Your task to perform on an android device: change keyboard looks Image 0: 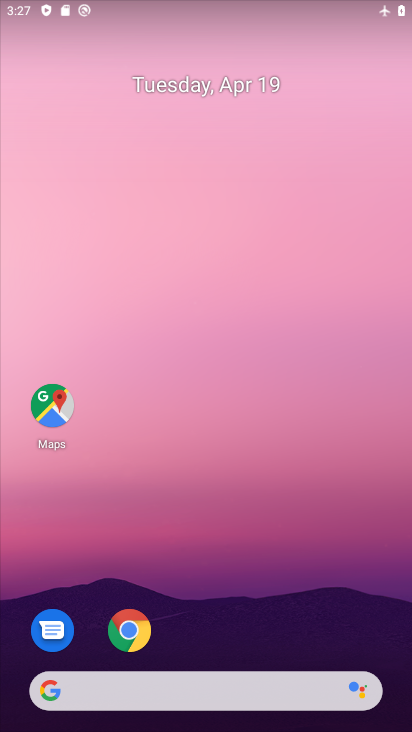
Step 0: drag from (336, 601) to (247, 53)
Your task to perform on an android device: change keyboard looks Image 1: 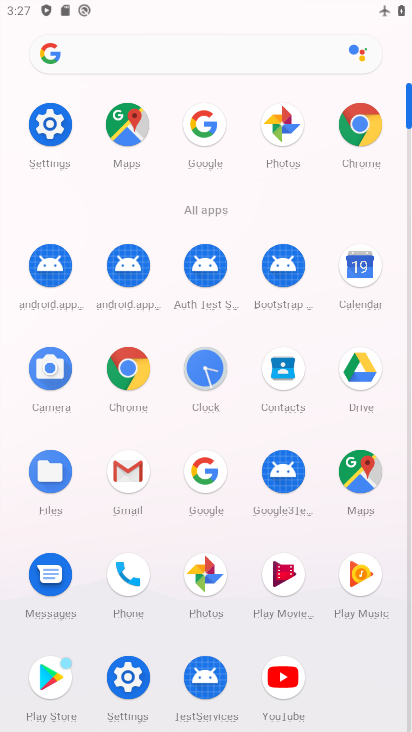
Step 1: click (49, 132)
Your task to perform on an android device: change keyboard looks Image 2: 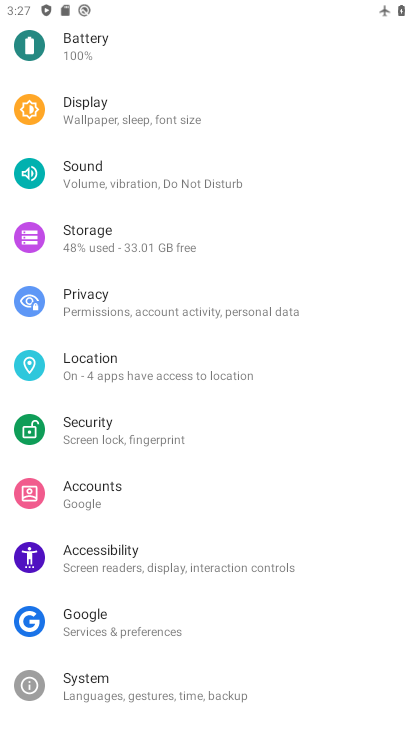
Step 2: drag from (211, 551) to (175, 219)
Your task to perform on an android device: change keyboard looks Image 3: 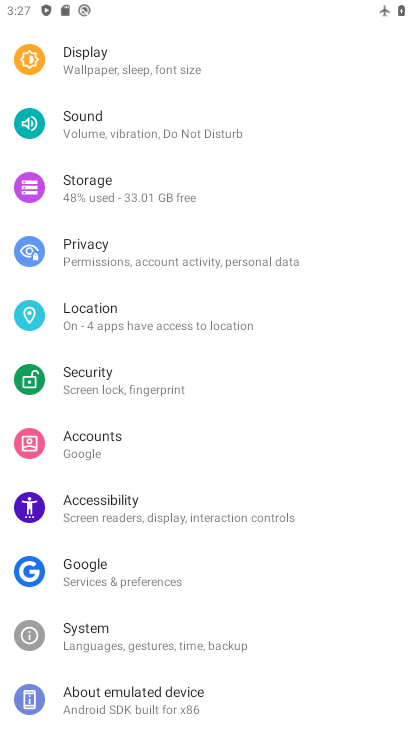
Step 3: drag from (245, 103) to (218, 484)
Your task to perform on an android device: change keyboard looks Image 4: 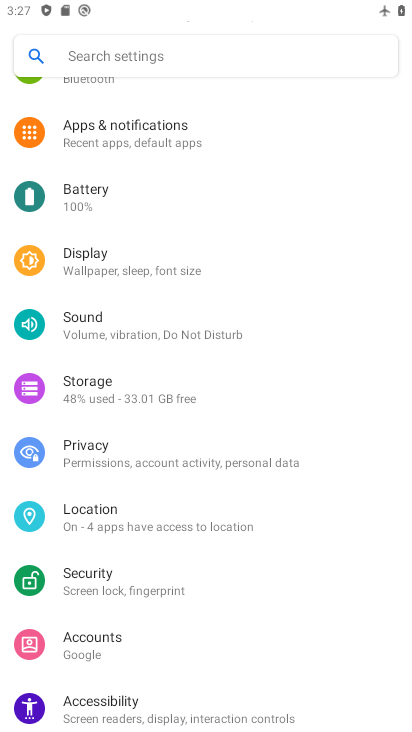
Step 4: drag from (232, 200) to (215, 502)
Your task to perform on an android device: change keyboard looks Image 5: 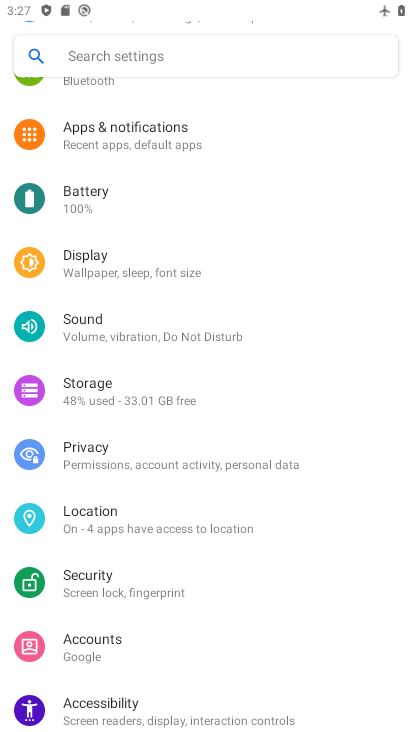
Step 5: drag from (178, 300) to (159, 596)
Your task to perform on an android device: change keyboard looks Image 6: 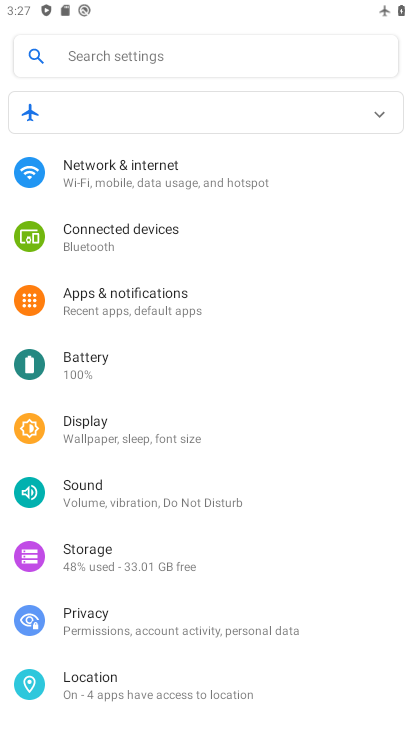
Step 6: drag from (227, 301) to (223, 550)
Your task to perform on an android device: change keyboard looks Image 7: 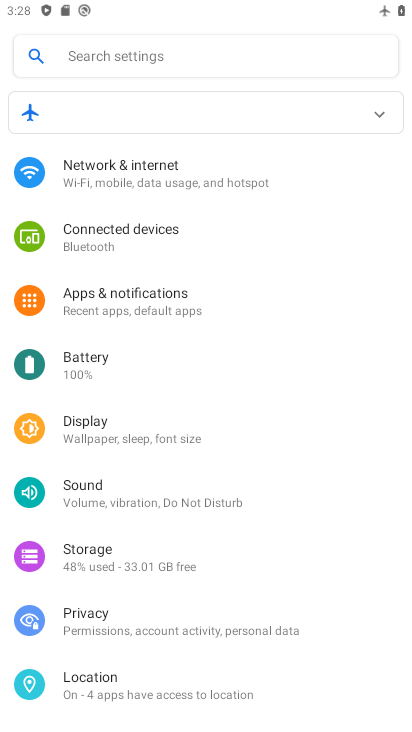
Step 7: drag from (178, 596) to (252, 271)
Your task to perform on an android device: change keyboard looks Image 8: 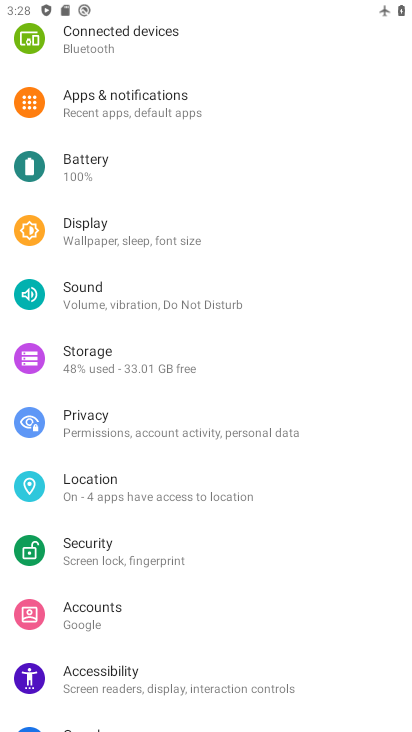
Step 8: drag from (199, 527) to (227, 193)
Your task to perform on an android device: change keyboard looks Image 9: 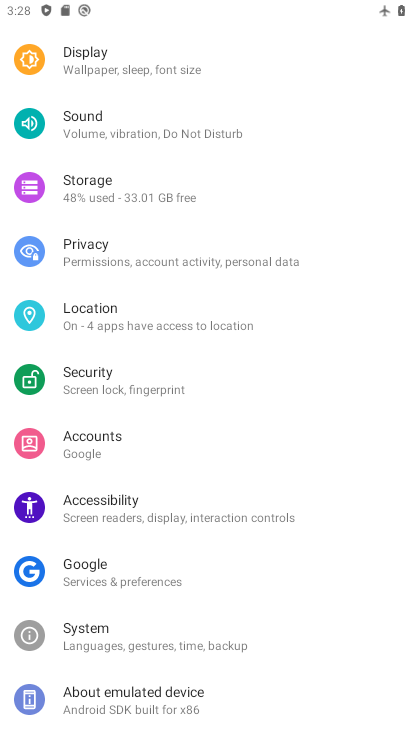
Step 9: drag from (171, 598) to (194, 263)
Your task to perform on an android device: change keyboard looks Image 10: 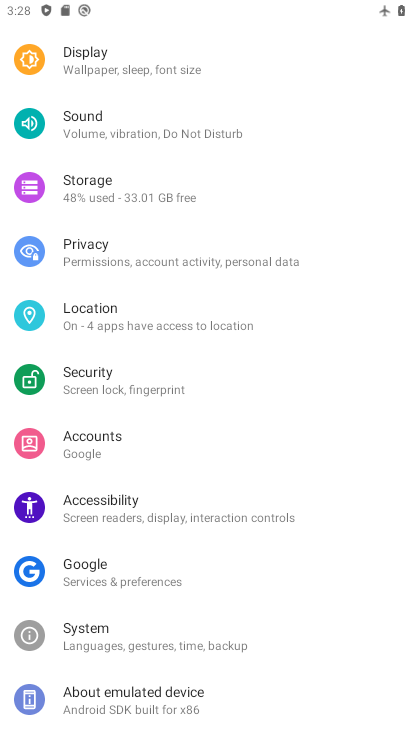
Step 10: click (142, 635)
Your task to perform on an android device: change keyboard looks Image 11: 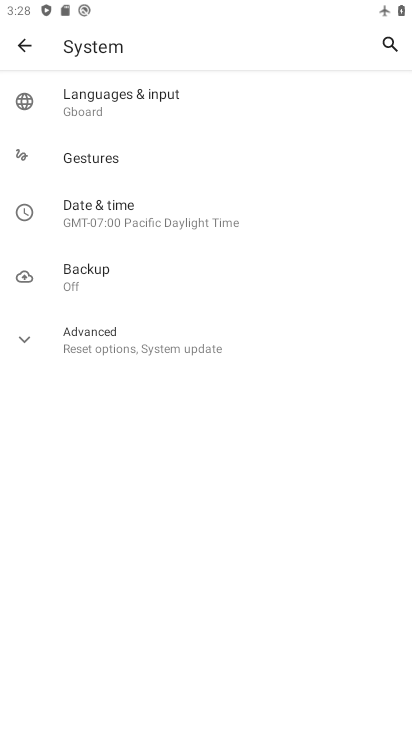
Step 11: click (101, 86)
Your task to perform on an android device: change keyboard looks Image 12: 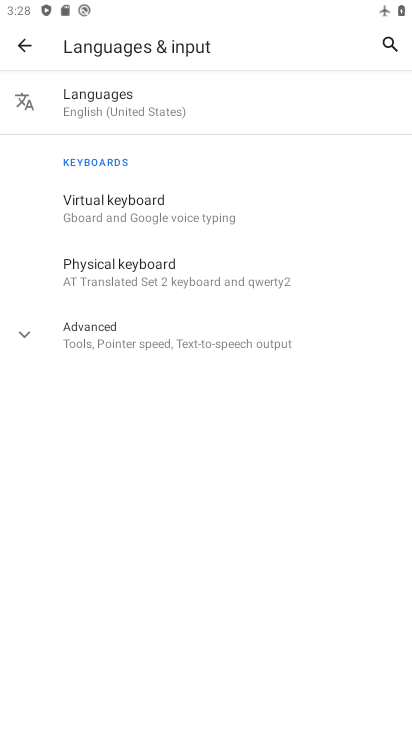
Step 12: click (106, 214)
Your task to perform on an android device: change keyboard looks Image 13: 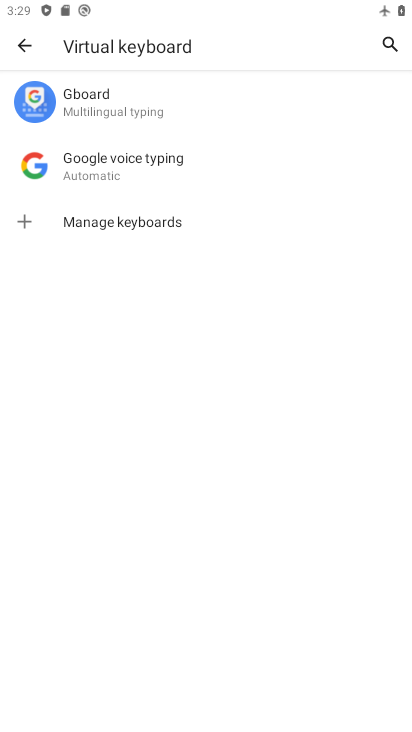
Step 13: click (68, 113)
Your task to perform on an android device: change keyboard looks Image 14: 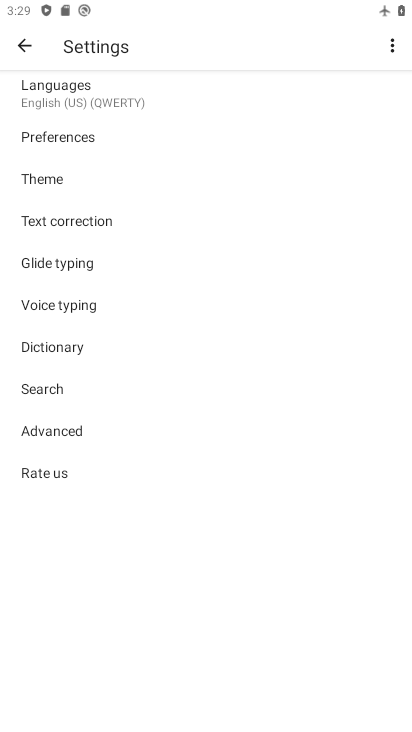
Step 14: click (52, 188)
Your task to perform on an android device: change keyboard looks Image 15: 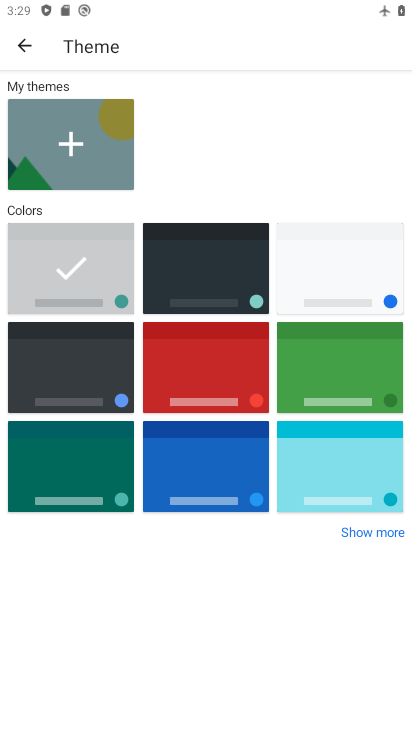
Step 15: click (169, 273)
Your task to perform on an android device: change keyboard looks Image 16: 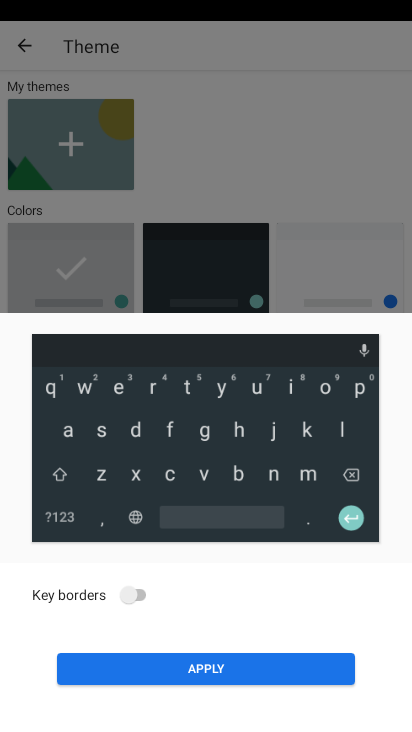
Step 16: click (226, 672)
Your task to perform on an android device: change keyboard looks Image 17: 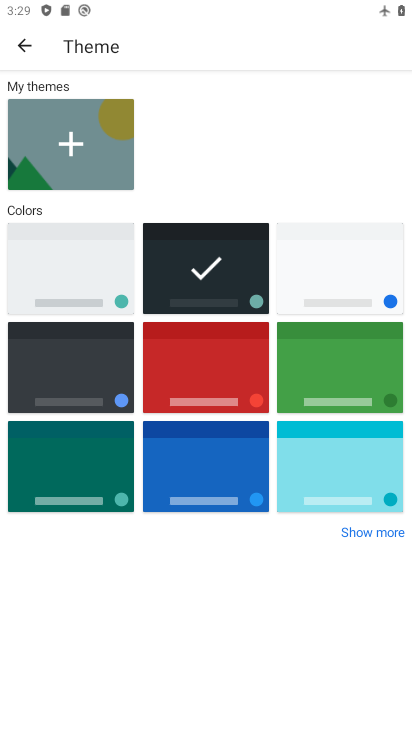
Step 17: task complete